Your task to perform on an android device: Open location settings Image 0: 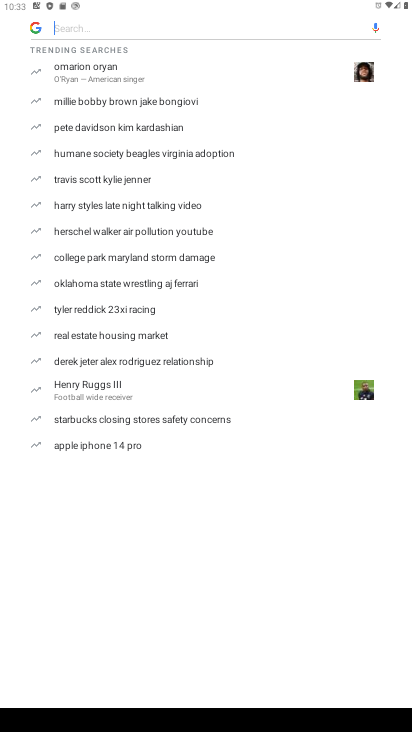
Step 0: press home button
Your task to perform on an android device: Open location settings Image 1: 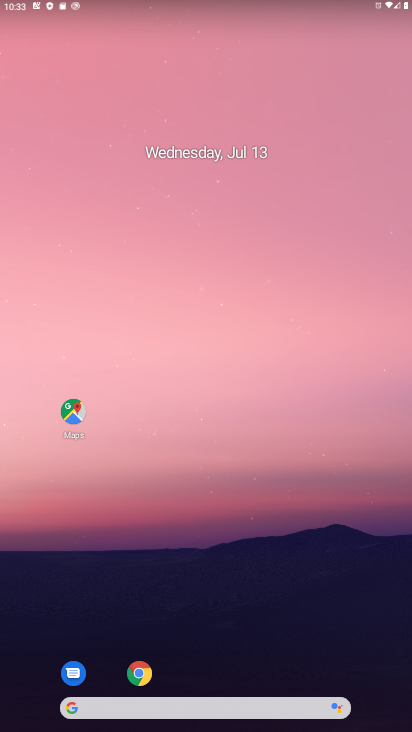
Step 1: drag from (194, 663) to (280, 8)
Your task to perform on an android device: Open location settings Image 2: 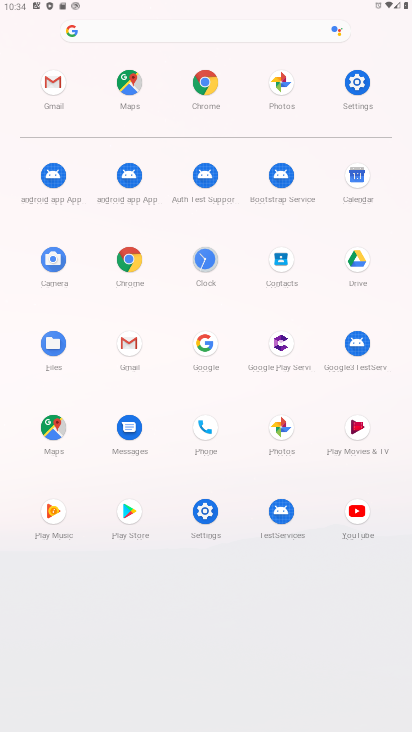
Step 2: click (357, 92)
Your task to perform on an android device: Open location settings Image 3: 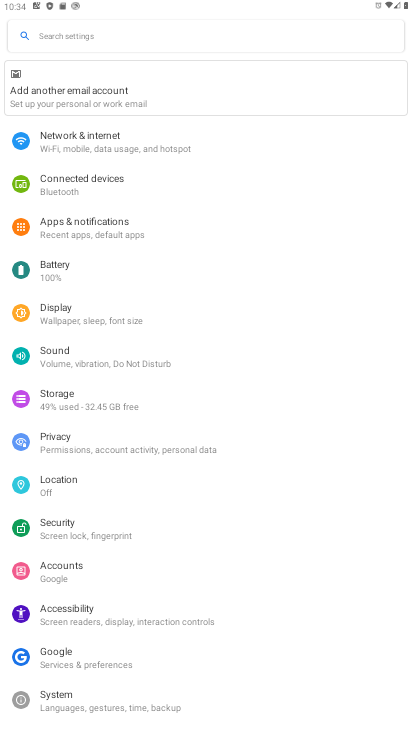
Step 3: click (103, 488)
Your task to perform on an android device: Open location settings Image 4: 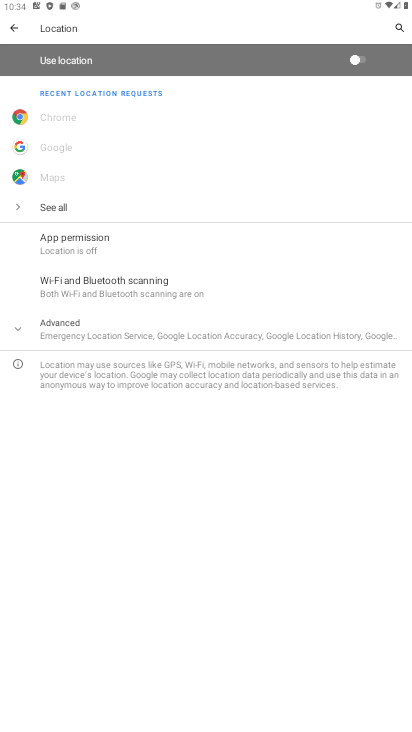
Step 4: task complete